Your task to perform on an android device: open sync settings in chrome Image 0: 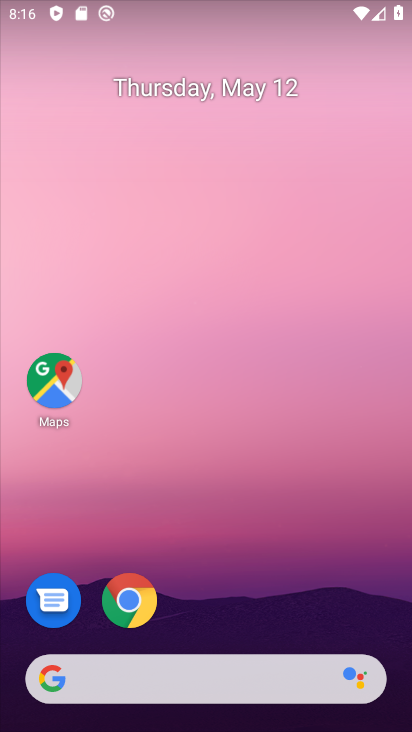
Step 0: drag from (251, 638) to (256, 151)
Your task to perform on an android device: open sync settings in chrome Image 1: 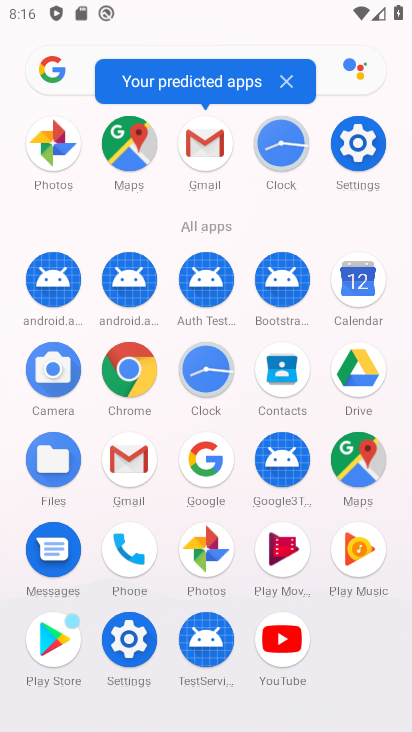
Step 1: click (141, 400)
Your task to perform on an android device: open sync settings in chrome Image 2: 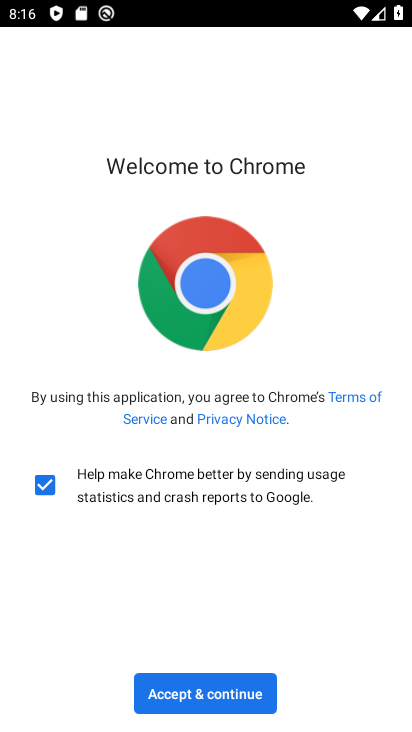
Step 2: click (249, 699)
Your task to perform on an android device: open sync settings in chrome Image 3: 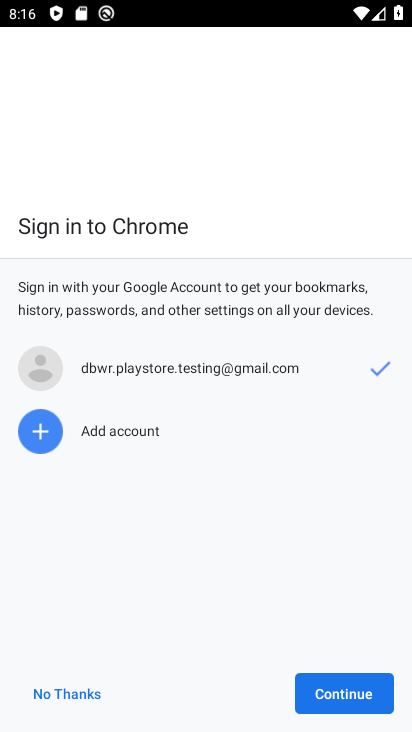
Step 3: click (330, 698)
Your task to perform on an android device: open sync settings in chrome Image 4: 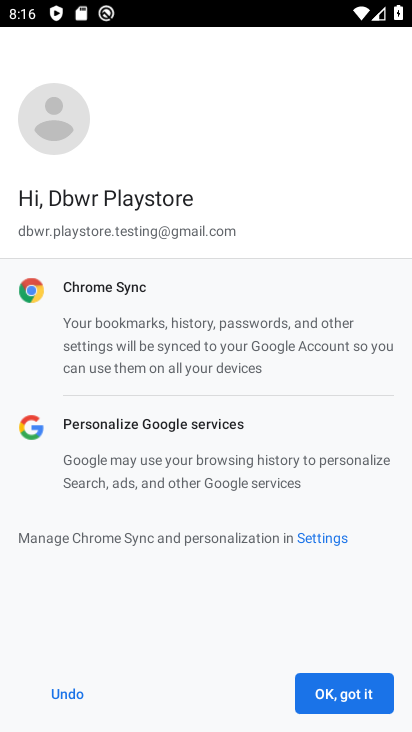
Step 4: click (330, 698)
Your task to perform on an android device: open sync settings in chrome Image 5: 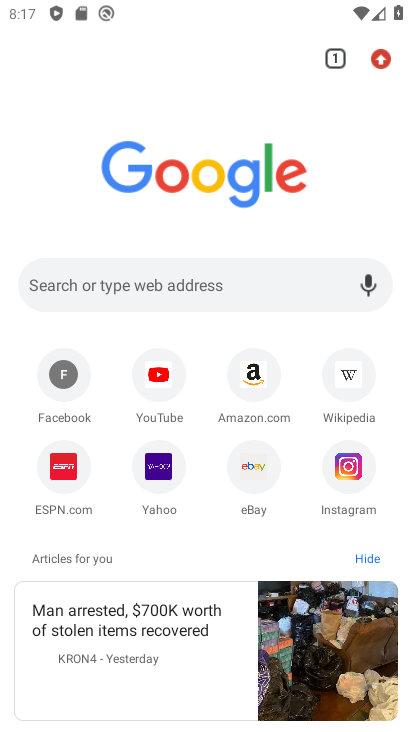
Step 5: click (380, 65)
Your task to perform on an android device: open sync settings in chrome Image 6: 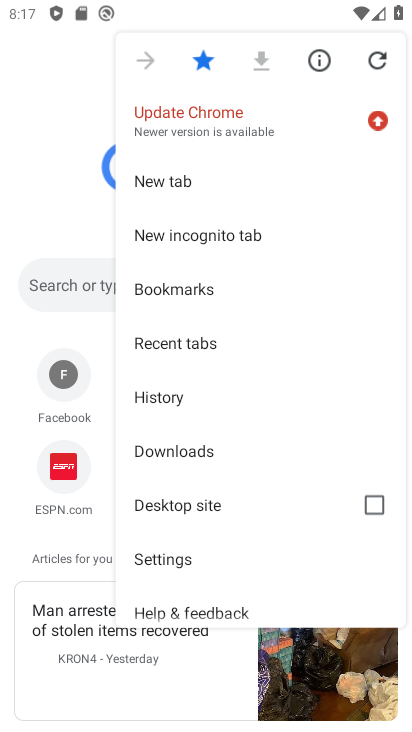
Step 6: click (170, 561)
Your task to perform on an android device: open sync settings in chrome Image 7: 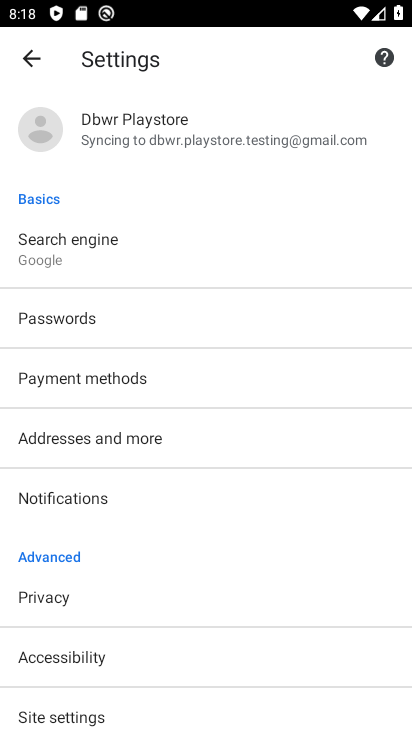
Step 7: click (201, 136)
Your task to perform on an android device: open sync settings in chrome Image 8: 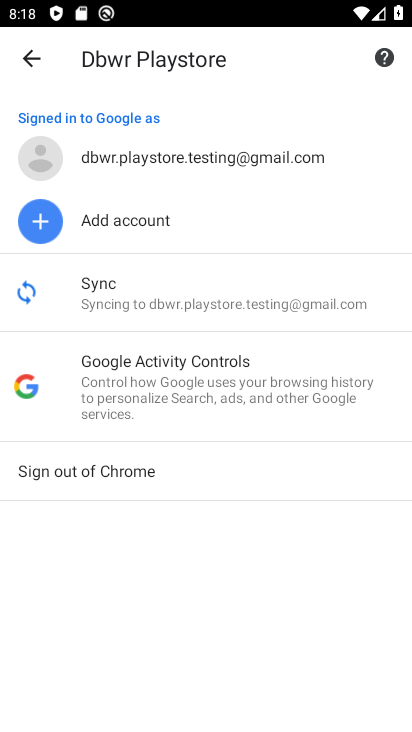
Step 8: click (125, 296)
Your task to perform on an android device: open sync settings in chrome Image 9: 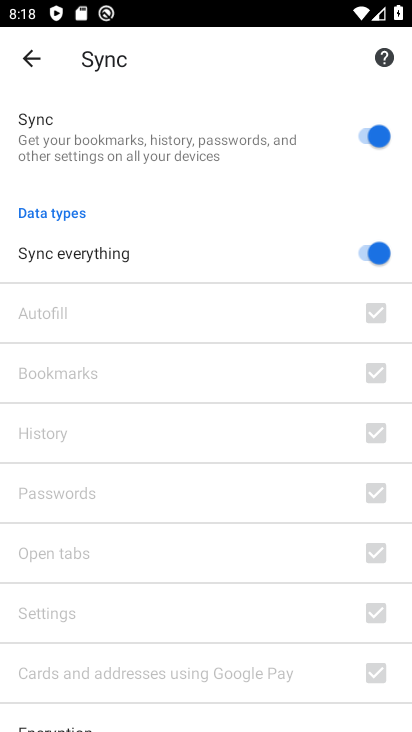
Step 9: task complete